Your task to perform on an android device: read, delete, or share a saved page in the chrome app Image 0: 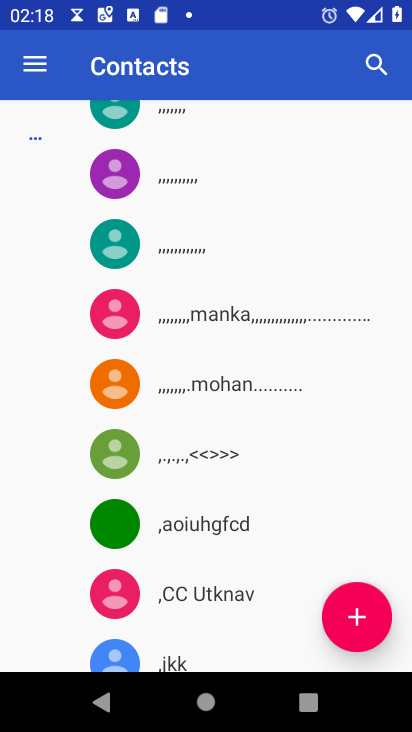
Step 0: press home button
Your task to perform on an android device: read, delete, or share a saved page in the chrome app Image 1: 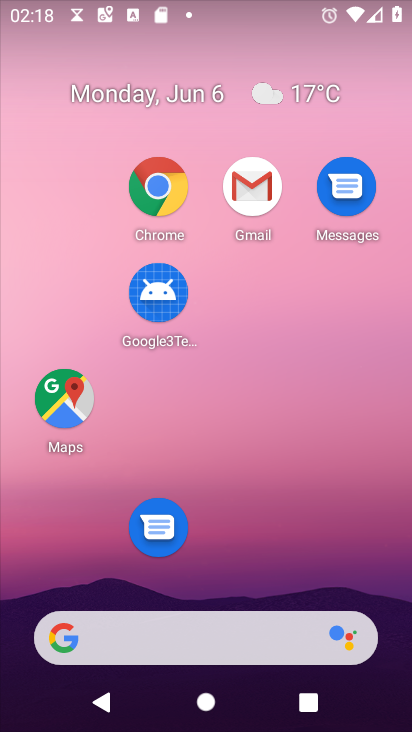
Step 1: click (164, 182)
Your task to perform on an android device: read, delete, or share a saved page in the chrome app Image 2: 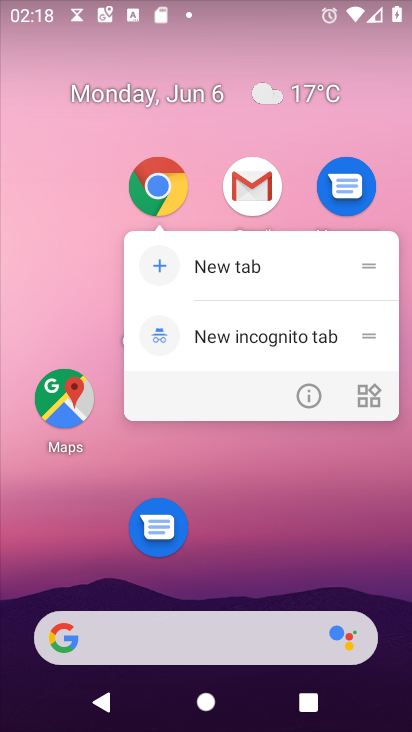
Step 2: click (164, 182)
Your task to perform on an android device: read, delete, or share a saved page in the chrome app Image 3: 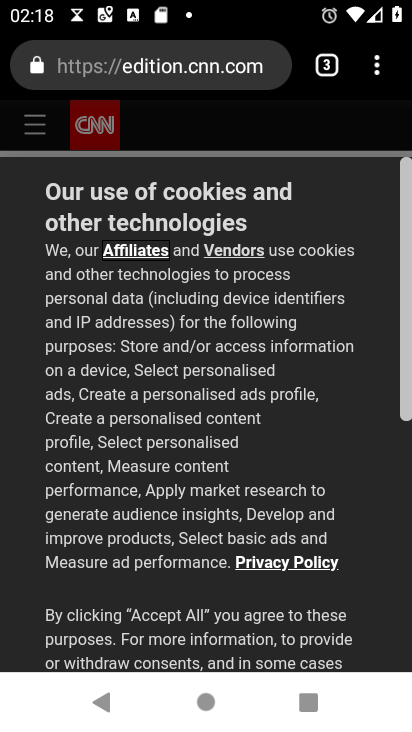
Step 3: click (387, 62)
Your task to perform on an android device: read, delete, or share a saved page in the chrome app Image 4: 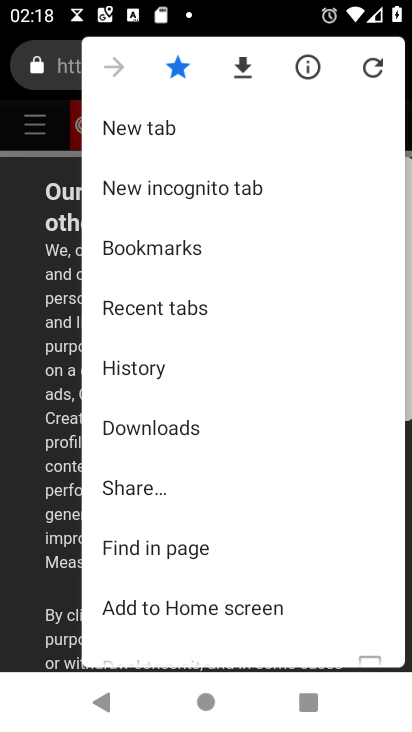
Step 4: click (173, 434)
Your task to perform on an android device: read, delete, or share a saved page in the chrome app Image 5: 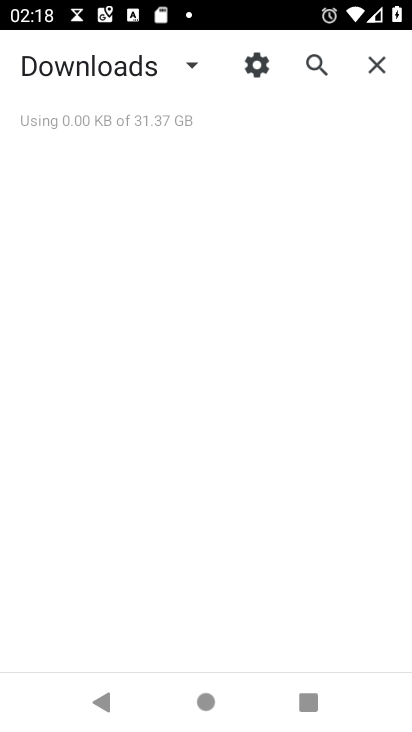
Step 5: click (184, 65)
Your task to perform on an android device: read, delete, or share a saved page in the chrome app Image 6: 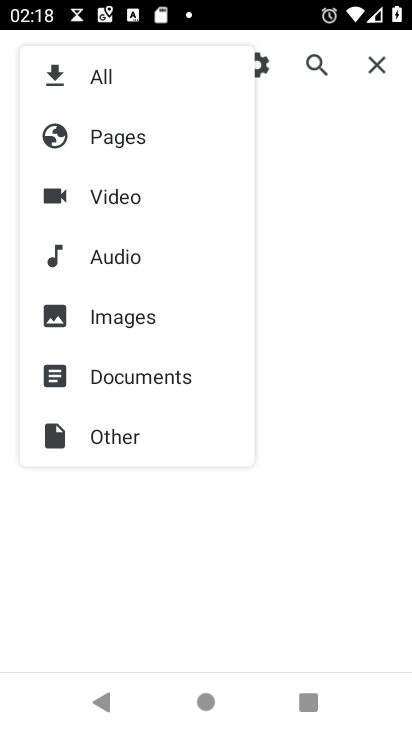
Step 6: click (104, 143)
Your task to perform on an android device: read, delete, or share a saved page in the chrome app Image 7: 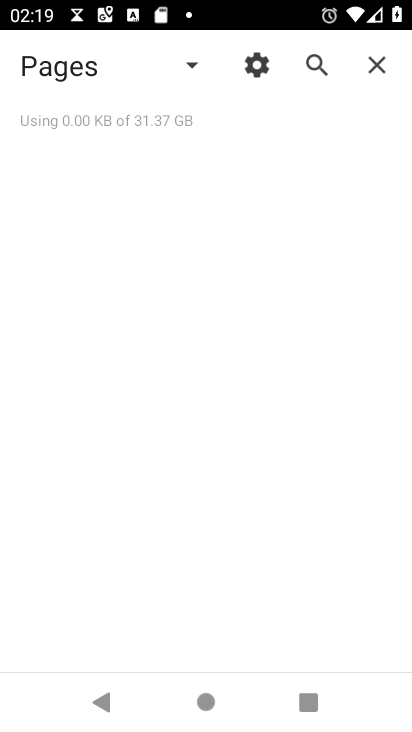
Step 7: task complete